Your task to perform on an android device: Open ESPN.com Image 0: 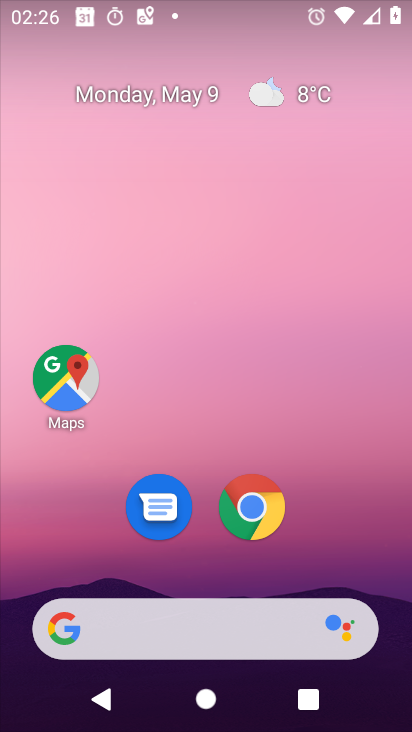
Step 0: click (252, 506)
Your task to perform on an android device: Open ESPN.com Image 1: 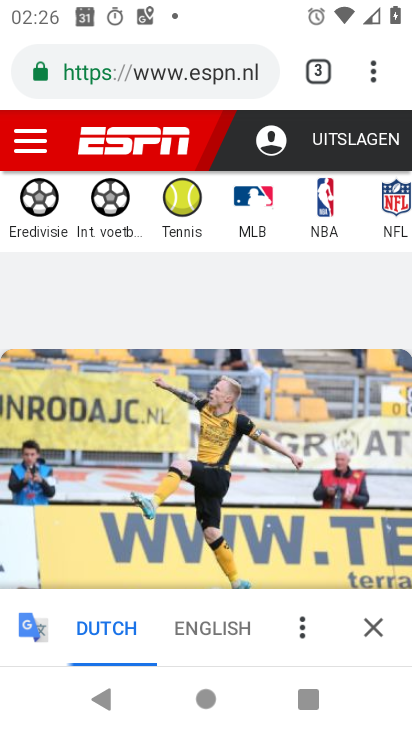
Step 1: task complete